Your task to perform on an android device: Go to network settings Image 0: 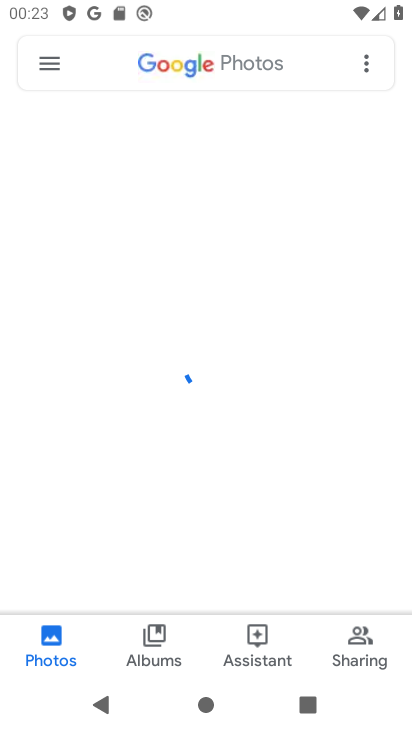
Step 0: press home button
Your task to perform on an android device: Go to network settings Image 1: 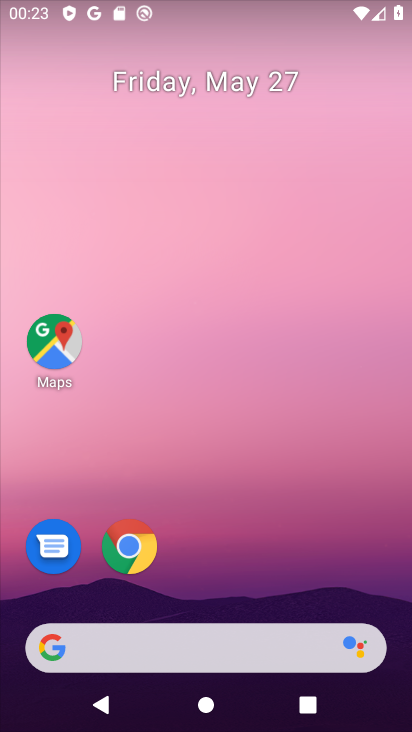
Step 1: drag from (364, 578) to (280, 154)
Your task to perform on an android device: Go to network settings Image 2: 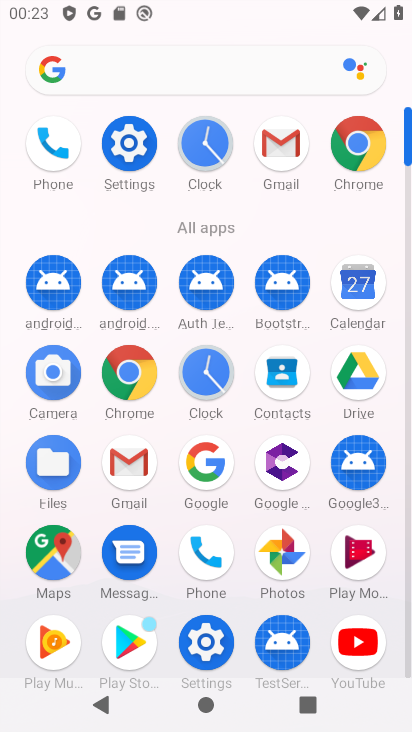
Step 2: click (191, 652)
Your task to perform on an android device: Go to network settings Image 3: 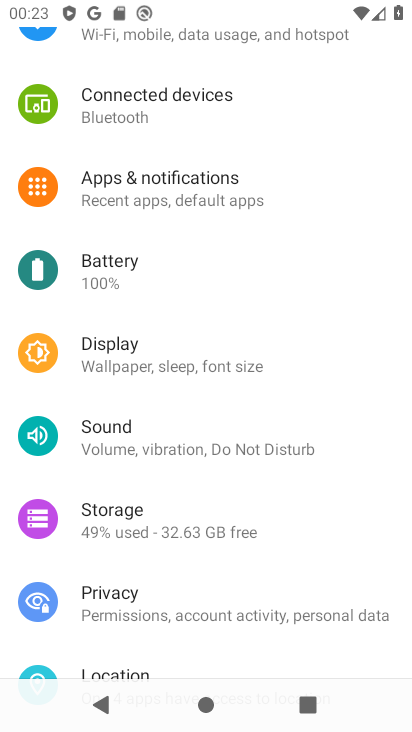
Step 3: drag from (280, 233) to (353, 607)
Your task to perform on an android device: Go to network settings Image 4: 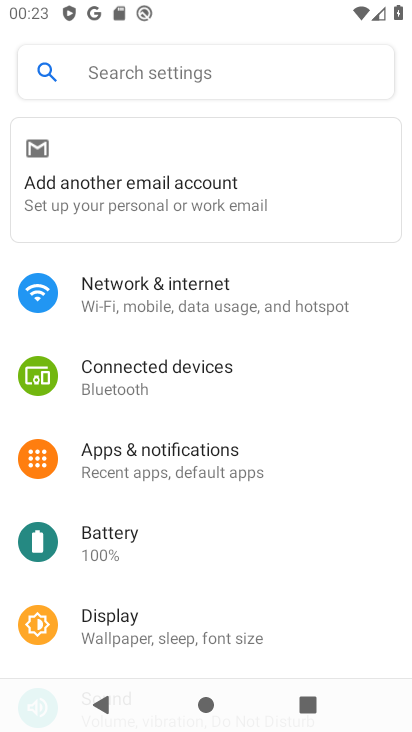
Step 4: click (272, 308)
Your task to perform on an android device: Go to network settings Image 5: 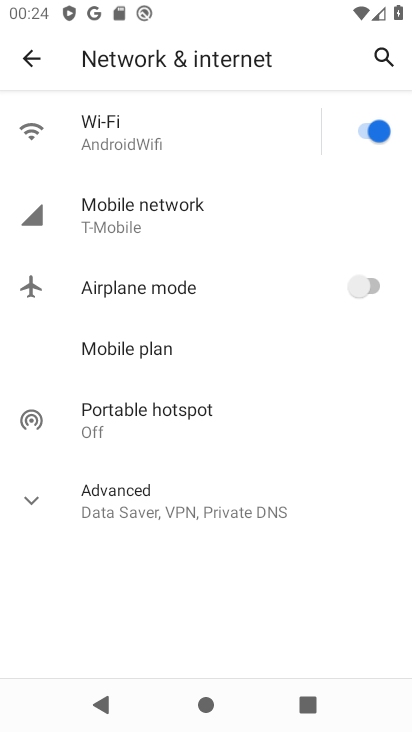
Step 5: task complete